Your task to perform on an android device: Open Yahoo.com Image 0: 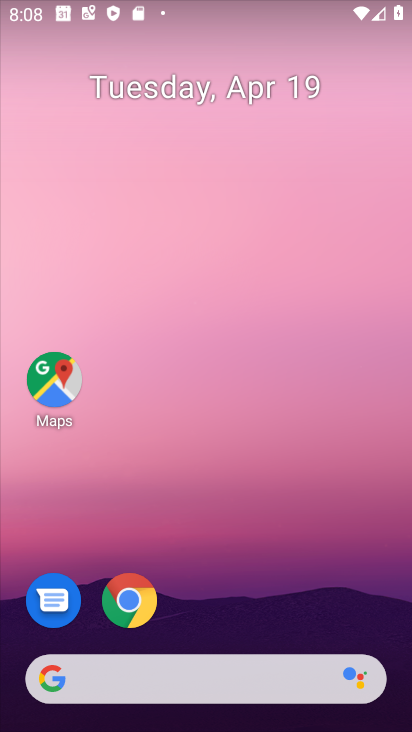
Step 0: drag from (314, 608) to (221, 40)
Your task to perform on an android device: Open Yahoo.com Image 1: 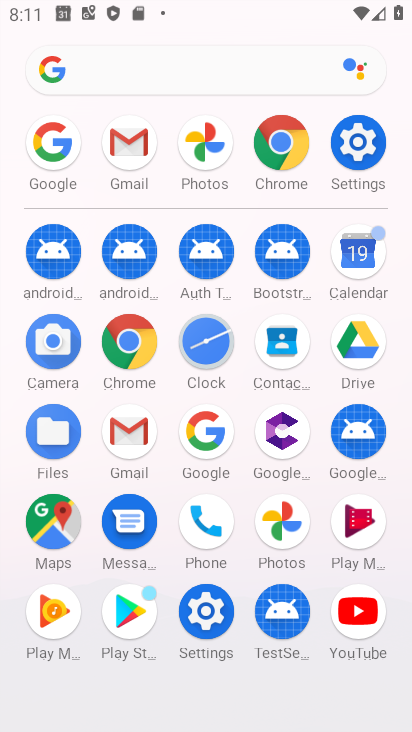
Step 1: click (122, 333)
Your task to perform on an android device: Open Yahoo.com Image 2: 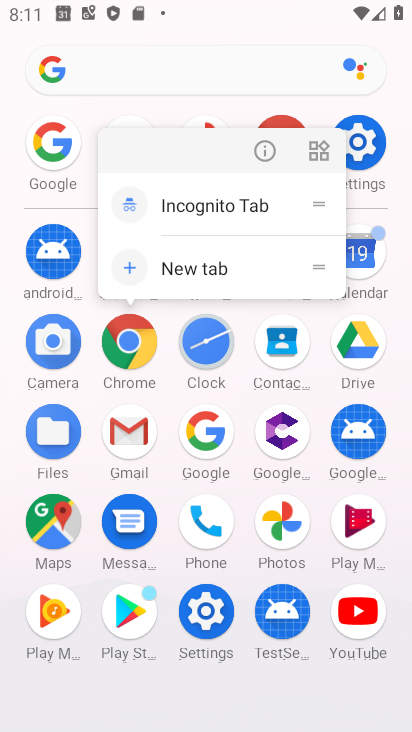
Step 2: click (129, 332)
Your task to perform on an android device: Open Yahoo.com Image 3: 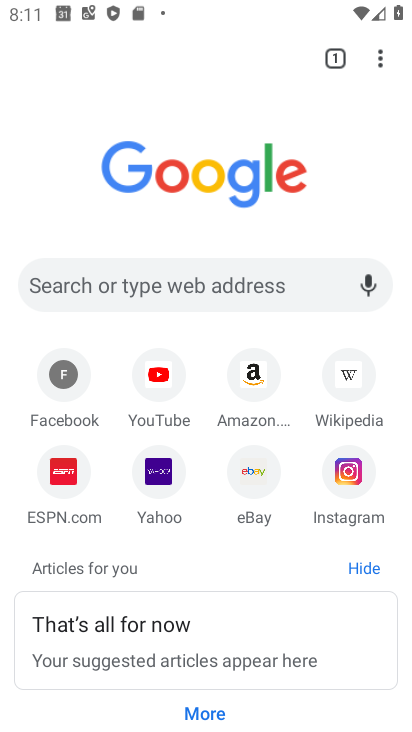
Step 3: click (165, 474)
Your task to perform on an android device: Open Yahoo.com Image 4: 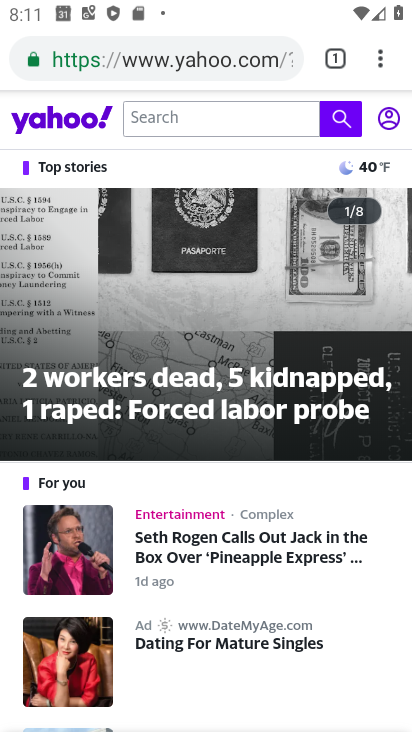
Step 4: task complete